Your task to perform on an android device: toggle location history Image 0: 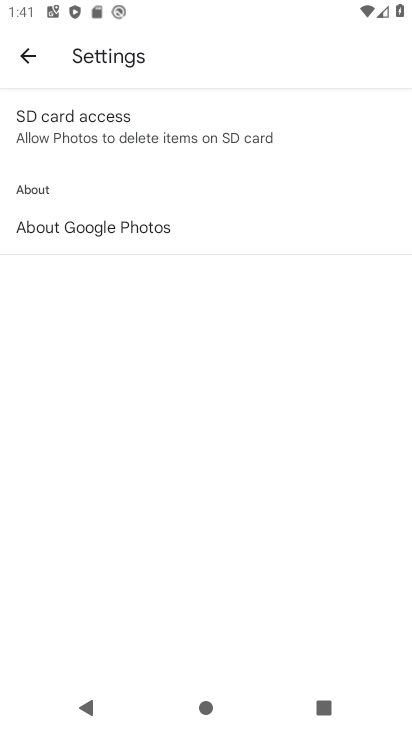
Step 0: press home button
Your task to perform on an android device: toggle location history Image 1: 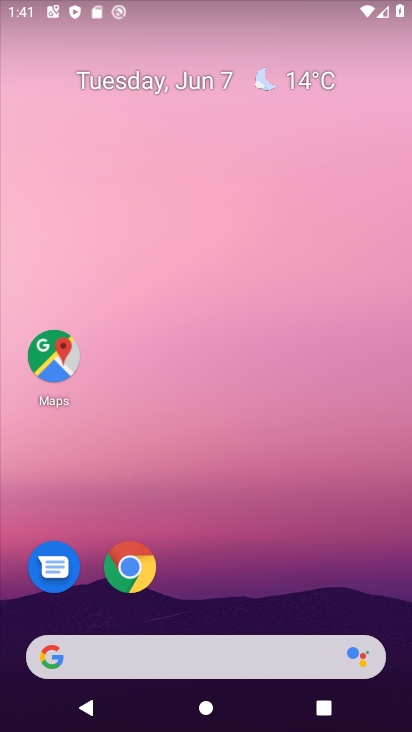
Step 1: drag from (273, 581) to (294, 23)
Your task to perform on an android device: toggle location history Image 2: 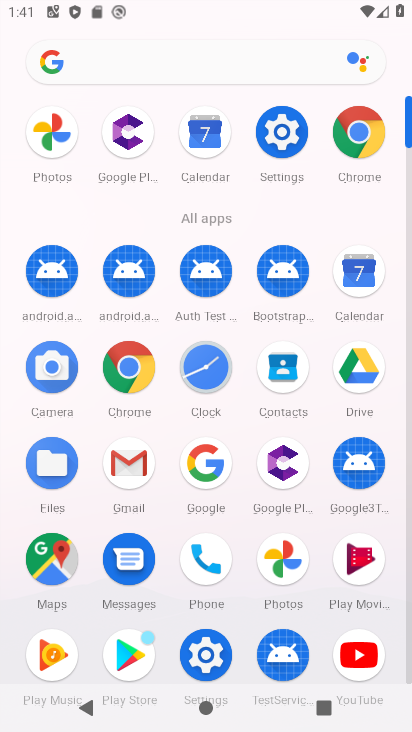
Step 2: click (258, 151)
Your task to perform on an android device: toggle location history Image 3: 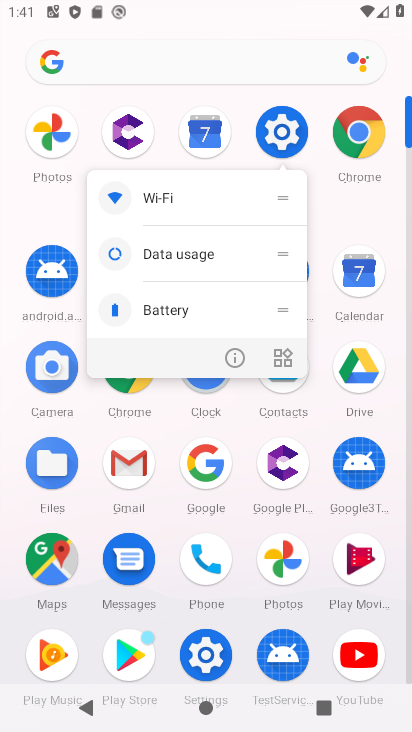
Step 3: click (282, 127)
Your task to perform on an android device: toggle location history Image 4: 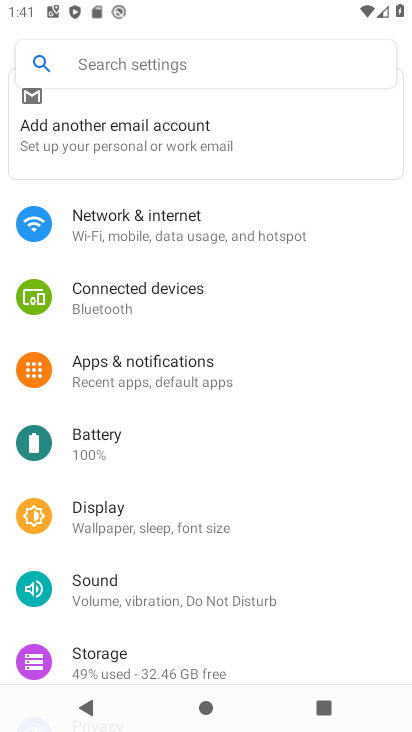
Step 4: drag from (170, 604) to (201, 169)
Your task to perform on an android device: toggle location history Image 5: 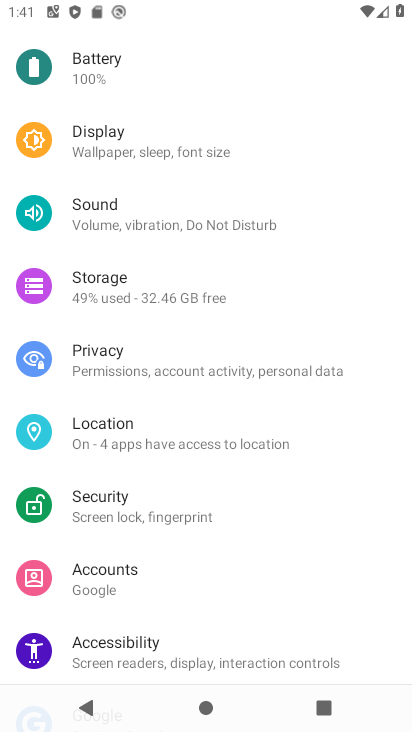
Step 5: click (130, 411)
Your task to perform on an android device: toggle location history Image 6: 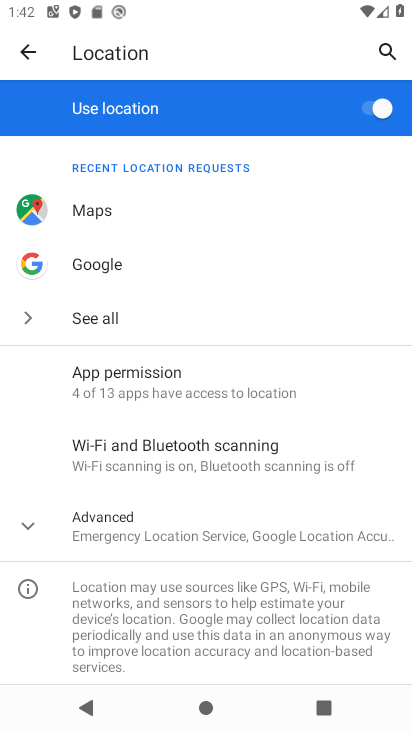
Step 6: click (102, 538)
Your task to perform on an android device: toggle location history Image 7: 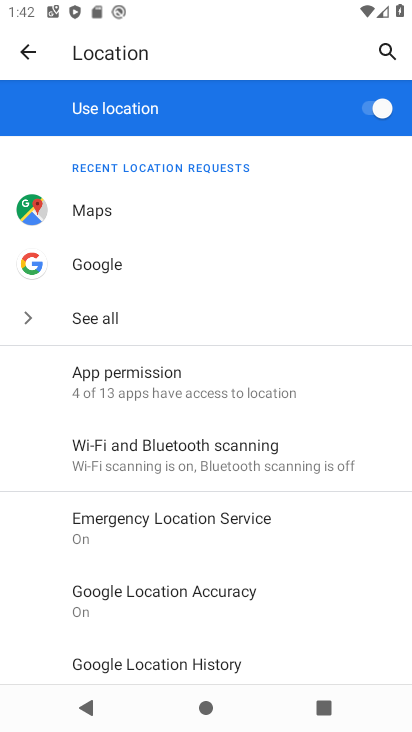
Step 7: click (181, 665)
Your task to perform on an android device: toggle location history Image 8: 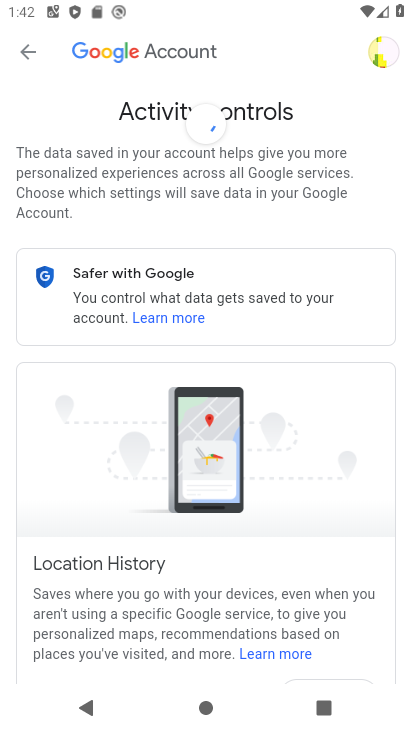
Step 8: drag from (198, 594) to (210, 102)
Your task to perform on an android device: toggle location history Image 9: 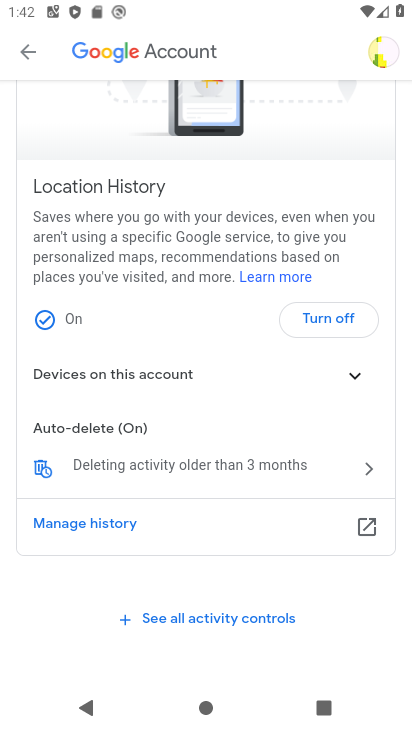
Step 9: drag from (176, 626) to (151, 175)
Your task to perform on an android device: toggle location history Image 10: 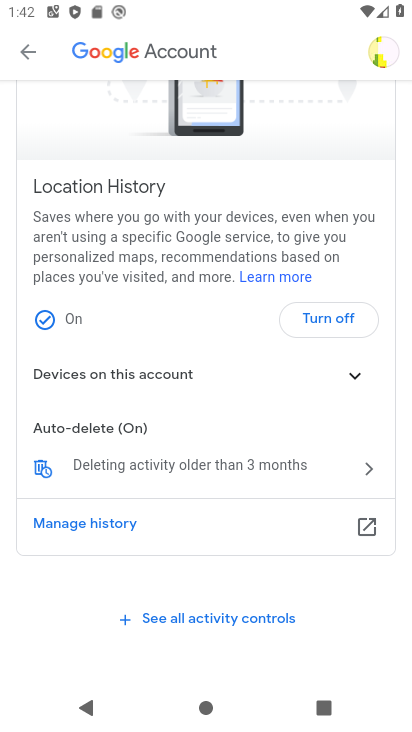
Step 10: drag from (235, 517) to (216, 198)
Your task to perform on an android device: toggle location history Image 11: 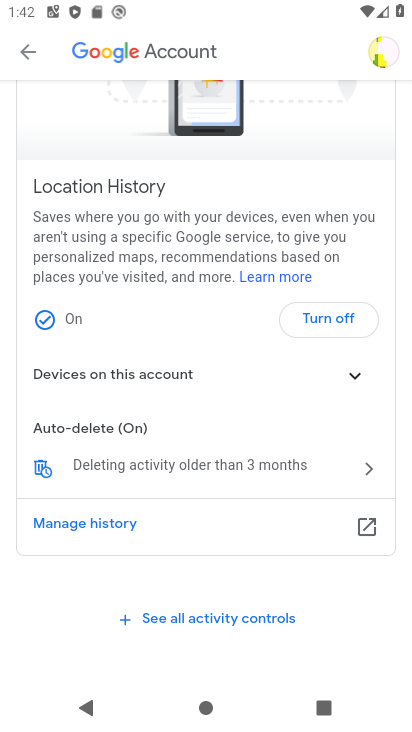
Step 11: click (356, 326)
Your task to perform on an android device: toggle location history Image 12: 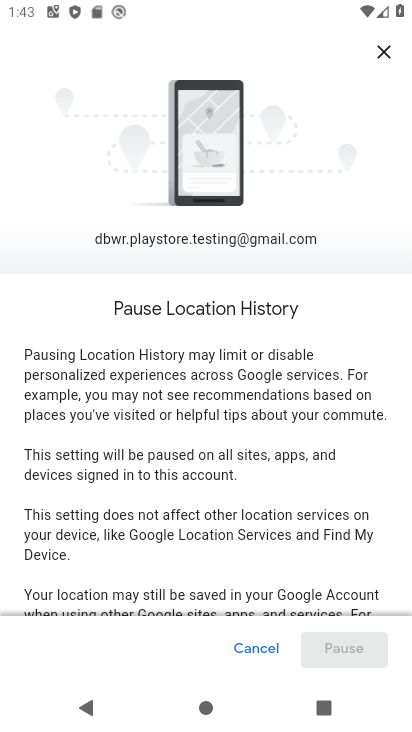
Step 12: drag from (290, 539) to (306, 114)
Your task to perform on an android device: toggle location history Image 13: 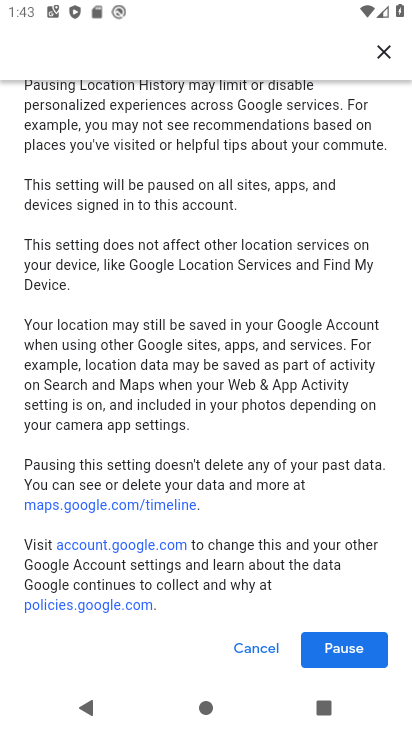
Step 13: drag from (281, 529) to (258, 148)
Your task to perform on an android device: toggle location history Image 14: 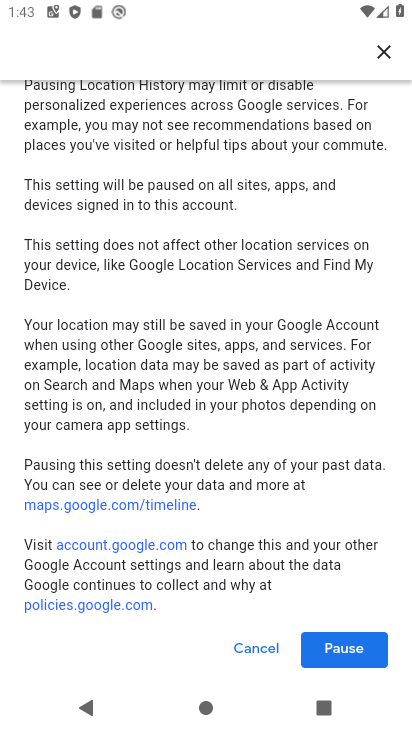
Step 14: click (333, 658)
Your task to perform on an android device: toggle location history Image 15: 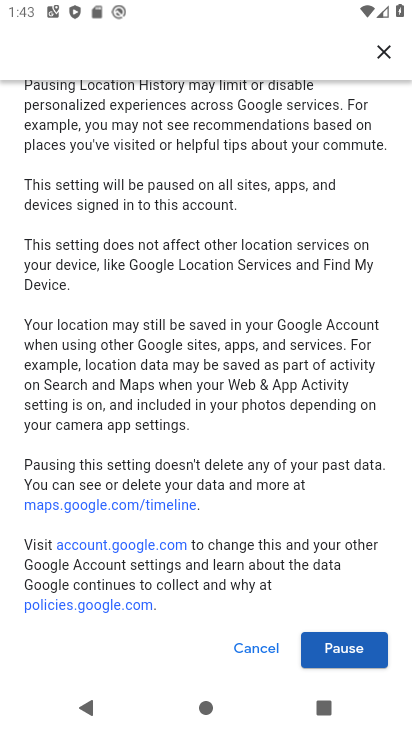
Step 15: click (340, 650)
Your task to perform on an android device: toggle location history Image 16: 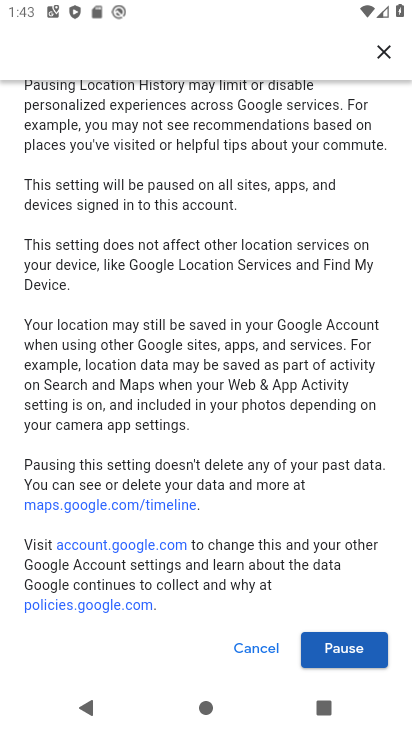
Step 16: click (340, 648)
Your task to perform on an android device: toggle location history Image 17: 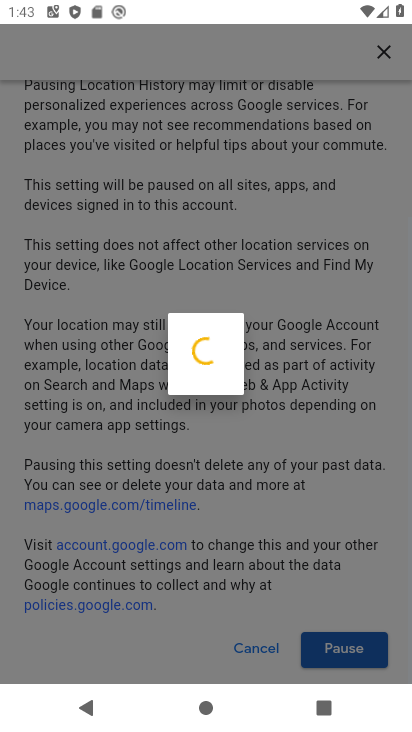
Step 17: click (340, 647)
Your task to perform on an android device: toggle location history Image 18: 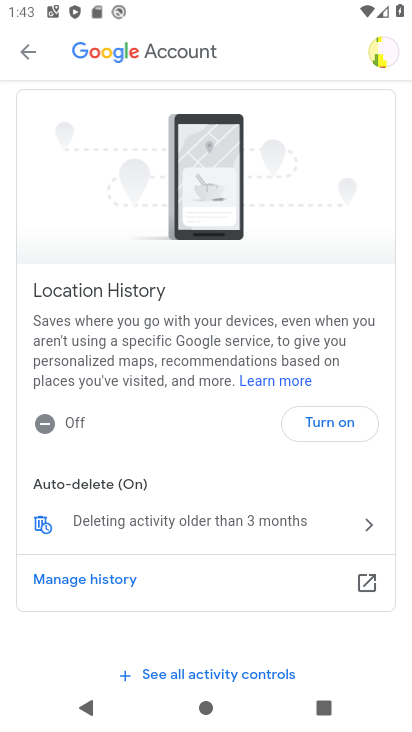
Step 18: task complete